Your task to perform on an android device: Go to Amazon Image 0: 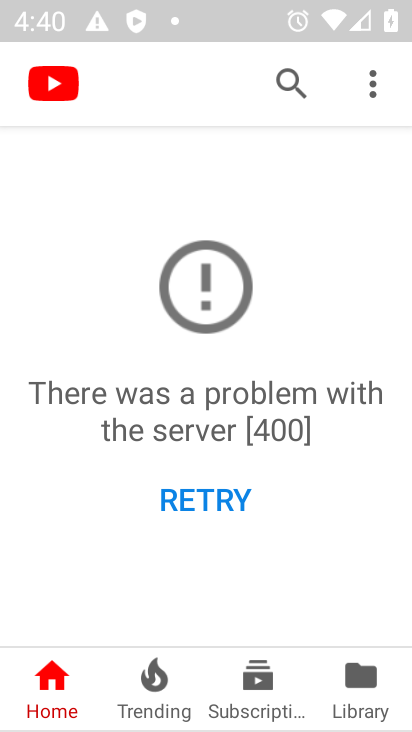
Step 0: press home button
Your task to perform on an android device: Go to Amazon Image 1: 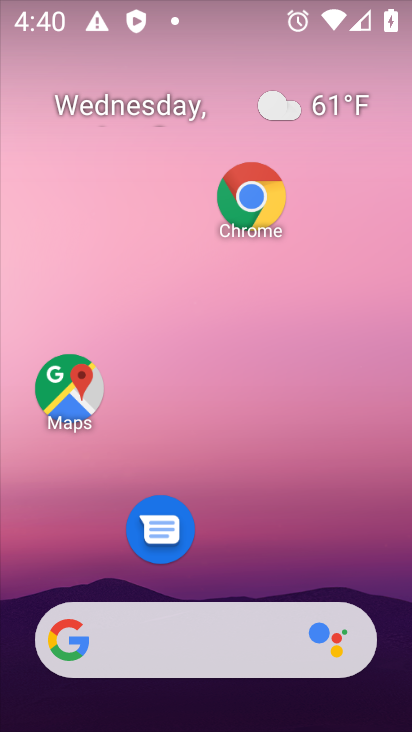
Step 1: click (268, 179)
Your task to perform on an android device: Go to Amazon Image 2: 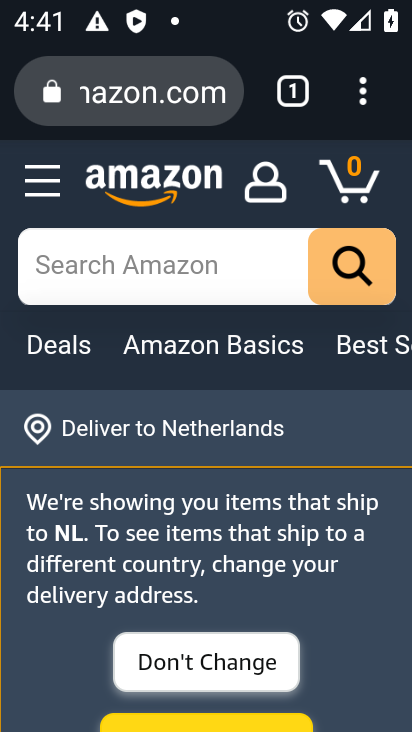
Step 2: click (128, 175)
Your task to perform on an android device: Go to Amazon Image 3: 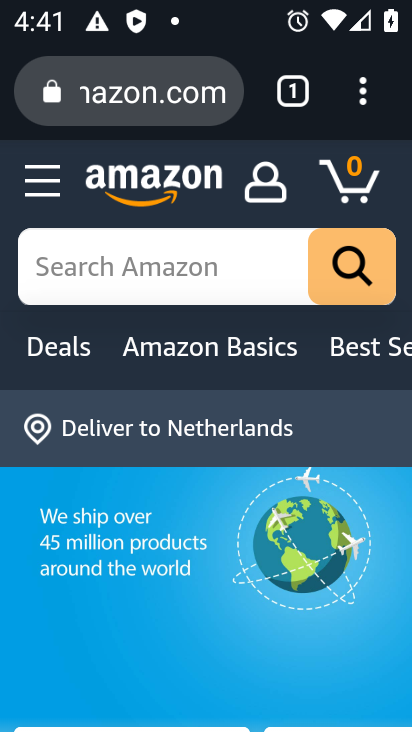
Step 3: task complete